Your task to perform on an android device: check out phone information Image 0: 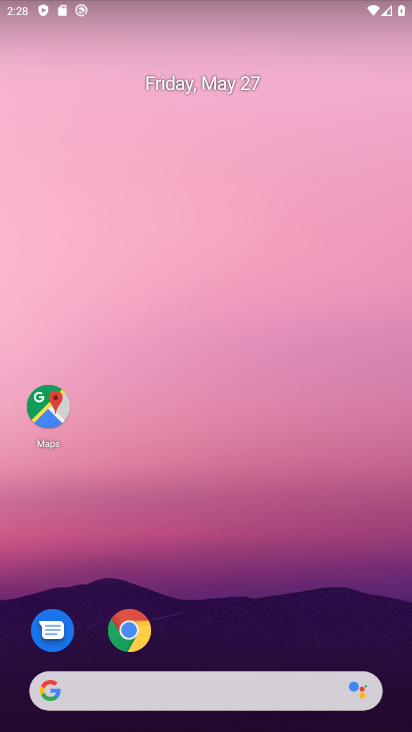
Step 0: click (121, 639)
Your task to perform on an android device: check out phone information Image 1: 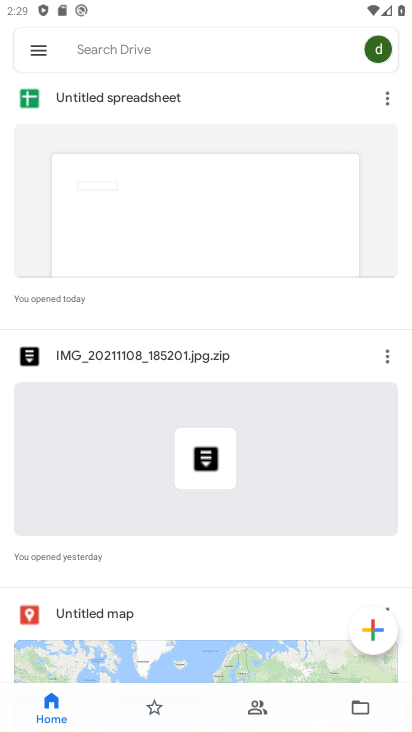
Step 1: press home button
Your task to perform on an android device: check out phone information Image 2: 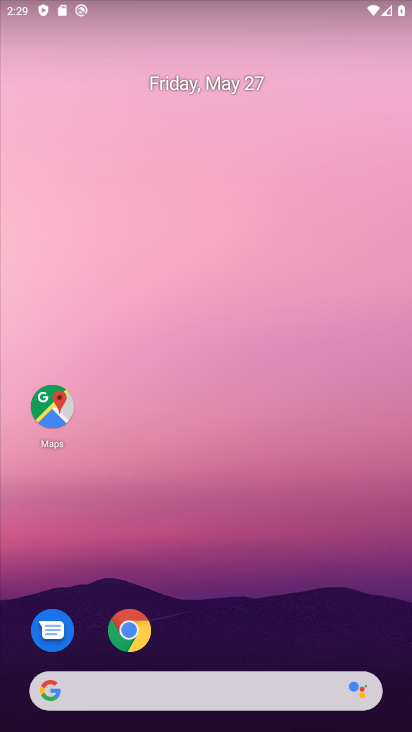
Step 2: drag from (222, 666) to (175, 63)
Your task to perform on an android device: check out phone information Image 3: 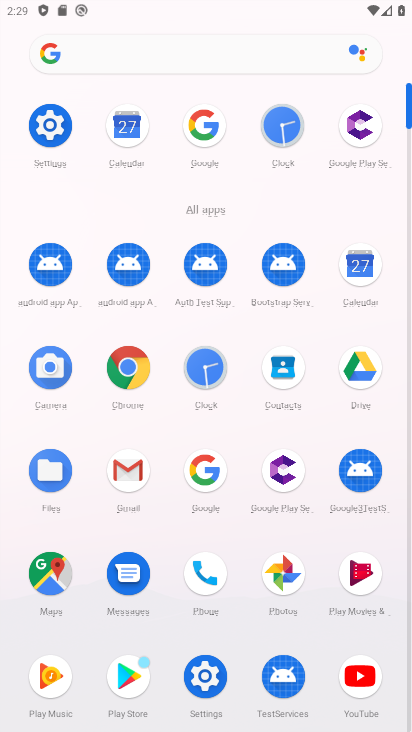
Step 3: click (205, 677)
Your task to perform on an android device: check out phone information Image 4: 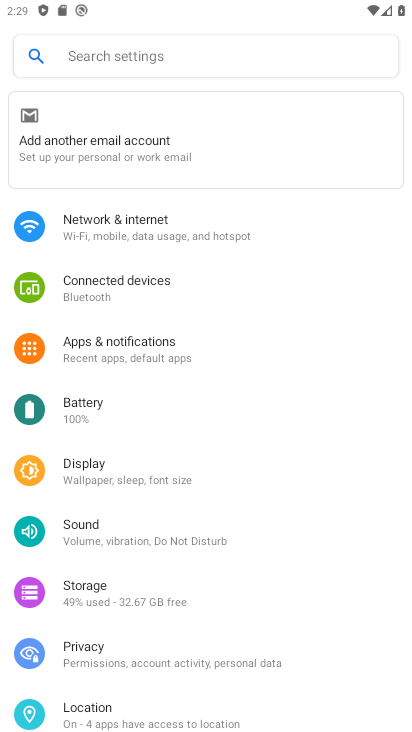
Step 4: task complete